Your task to perform on an android device: Open Google Chrome and click the shortcut for Amazon.com Image 0: 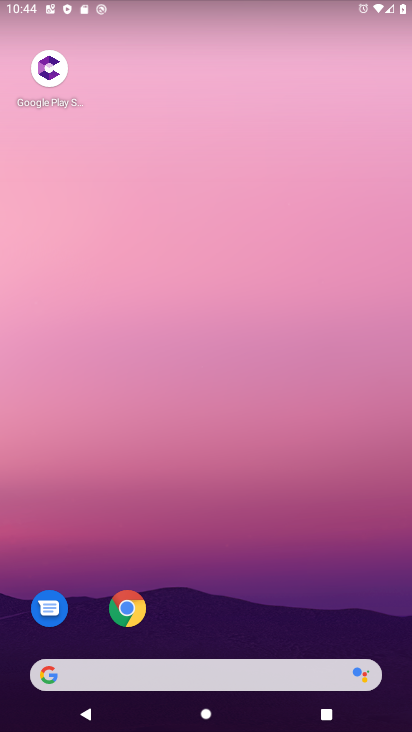
Step 0: drag from (264, 724) to (257, 114)
Your task to perform on an android device: Open Google Chrome and click the shortcut for Amazon.com Image 1: 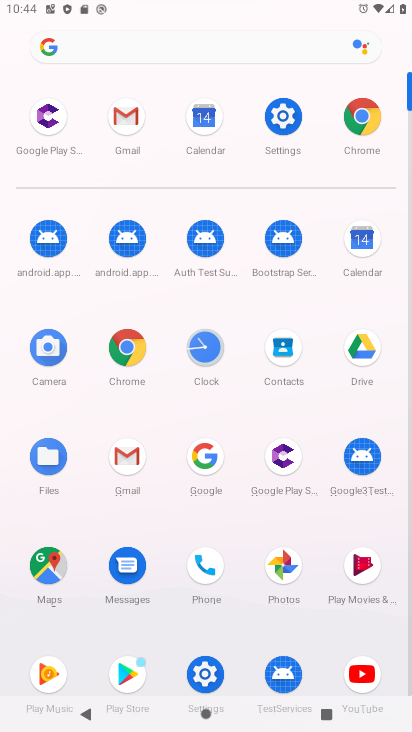
Step 1: click (127, 349)
Your task to perform on an android device: Open Google Chrome and click the shortcut for Amazon.com Image 2: 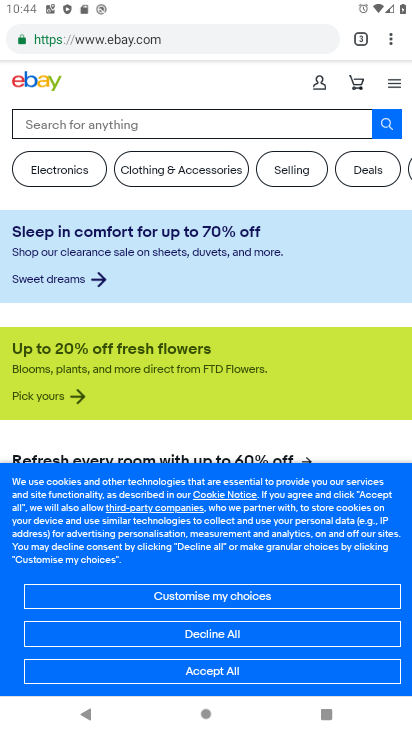
Step 2: click (389, 45)
Your task to perform on an android device: Open Google Chrome and click the shortcut for Amazon.com Image 3: 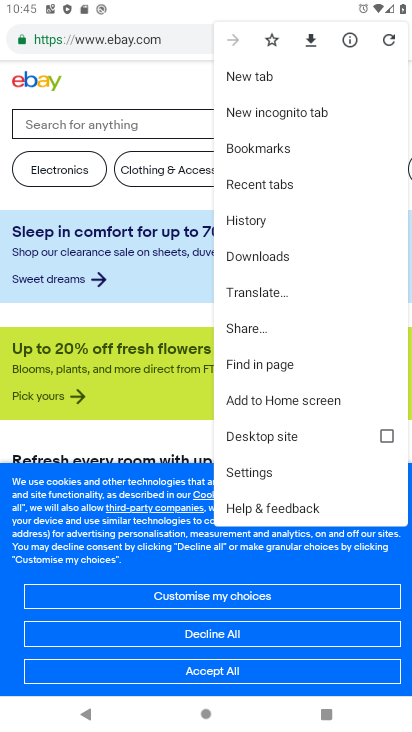
Step 3: click (233, 75)
Your task to perform on an android device: Open Google Chrome and click the shortcut for Amazon.com Image 4: 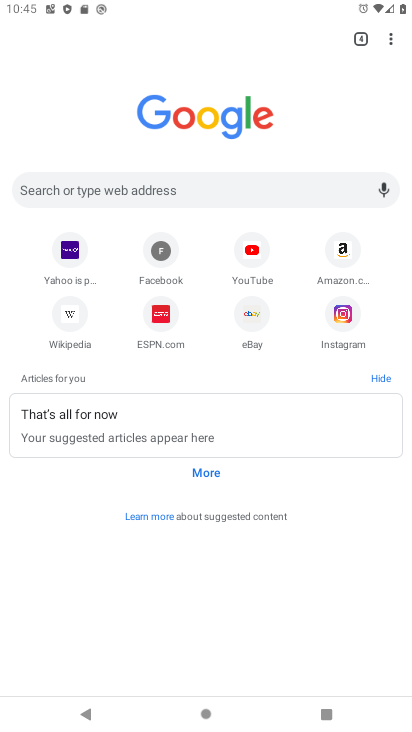
Step 4: click (343, 248)
Your task to perform on an android device: Open Google Chrome and click the shortcut for Amazon.com Image 5: 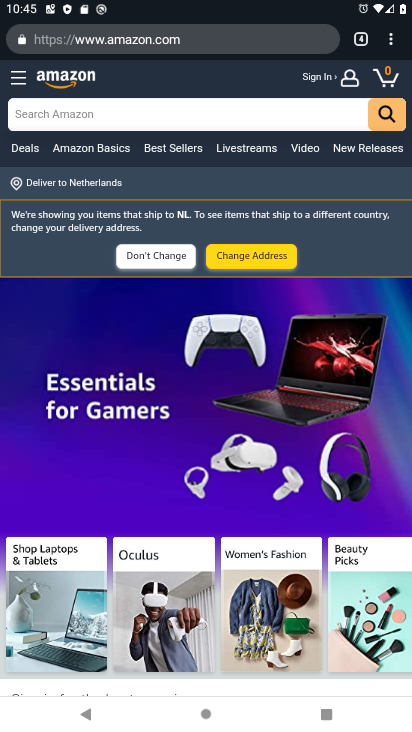
Step 5: task complete